Your task to perform on an android device: find snoozed emails in the gmail app Image 0: 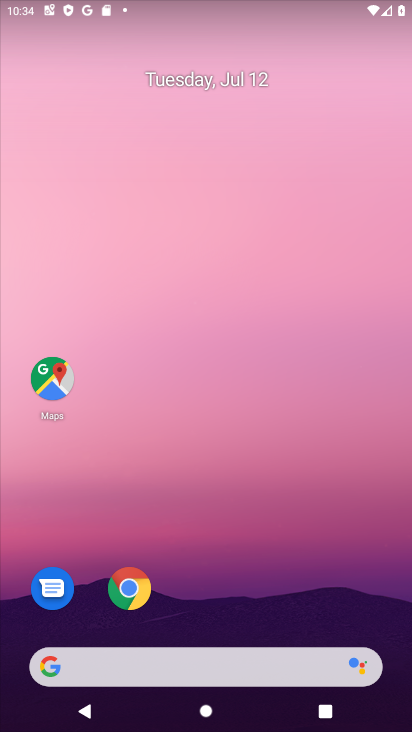
Step 0: drag from (252, 500) to (274, 73)
Your task to perform on an android device: find snoozed emails in the gmail app Image 1: 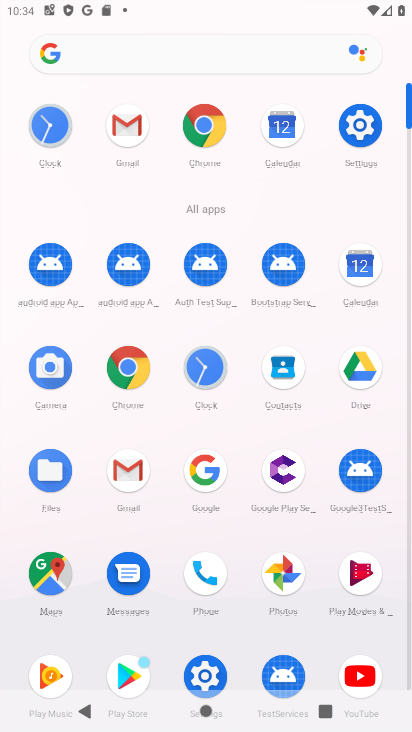
Step 1: click (127, 123)
Your task to perform on an android device: find snoozed emails in the gmail app Image 2: 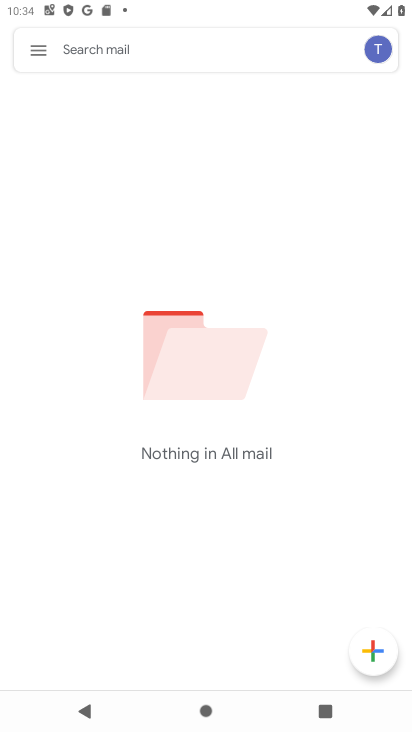
Step 2: click (31, 49)
Your task to perform on an android device: find snoozed emails in the gmail app Image 3: 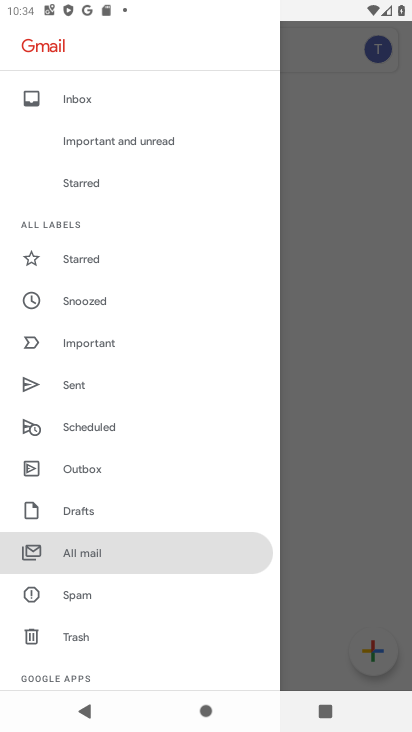
Step 3: click (61, 300)
Your task to perform on an android device: find snoozed emails in the gmail app Image 4: 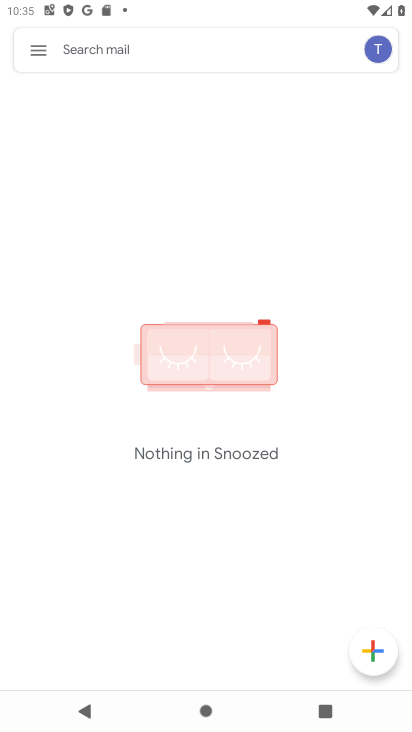
Step 4: task complete